Your task to perform on an android device: Search for sushi restaurants on Maps Image 0: 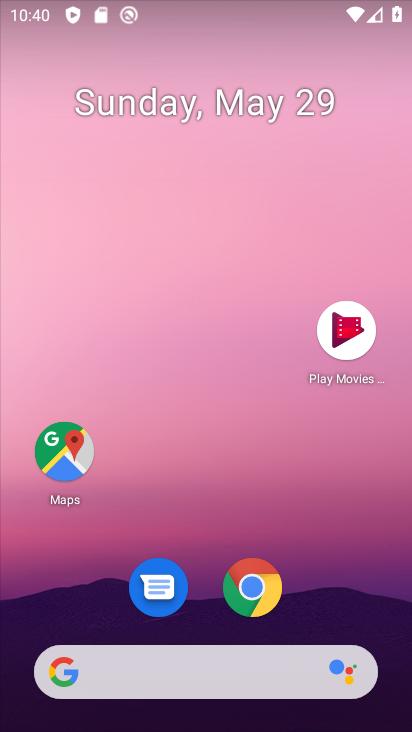
Step 0: click (70, 455)
Your task to perform on an android device: Search for sushi restaurants on Maps Image 1: 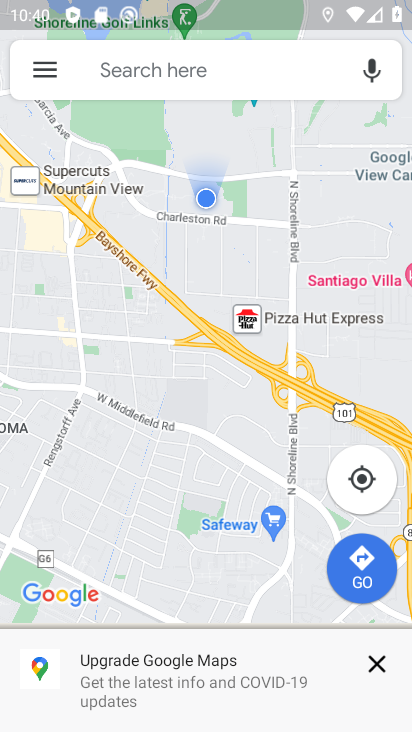
Step 1: click (153, 76)
Your task to perform on an android device: Search for sushi restaurants on Maps Image 2: 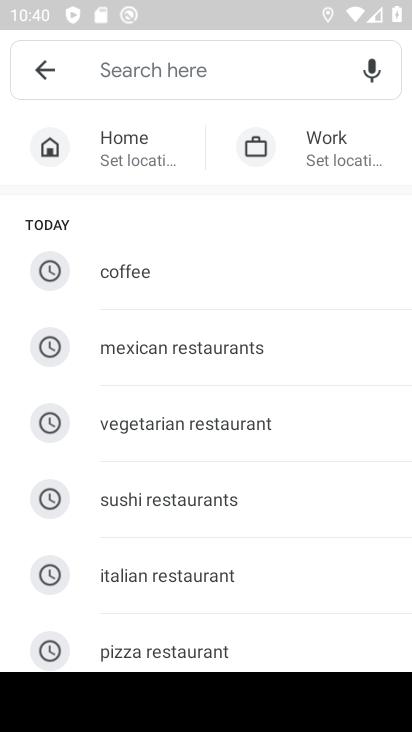
Step 2: click (211, 502)
Your task to perform on an android device: Search for sushi restaurants on Maps Image 3: 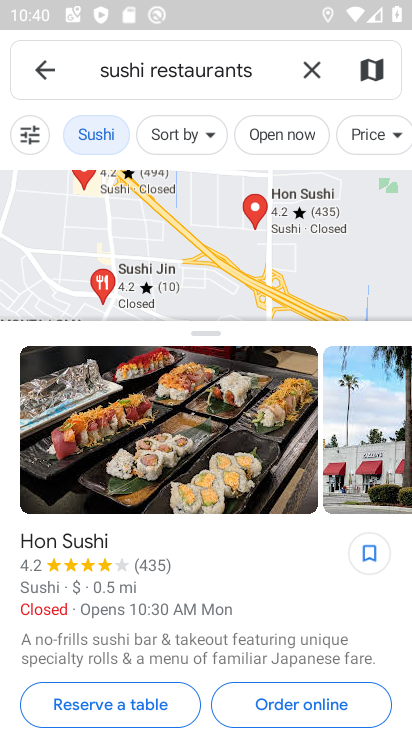
Step 3: task complete